Your task to perform on an android device: toggle location history Image 0: 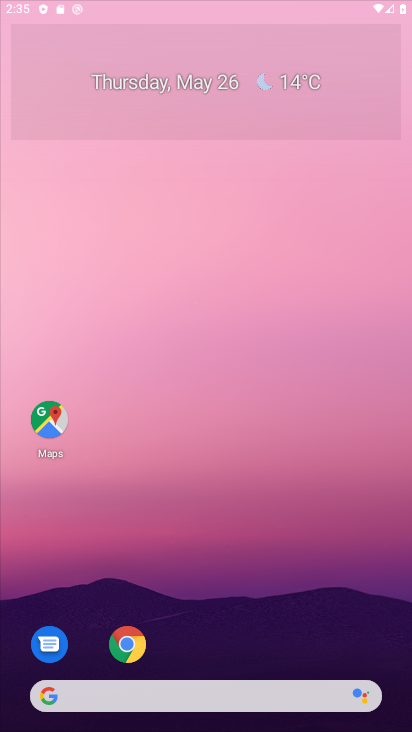
Step 0: click (290, 256)
Your task to perform on an android device: toggle location history Image 1: 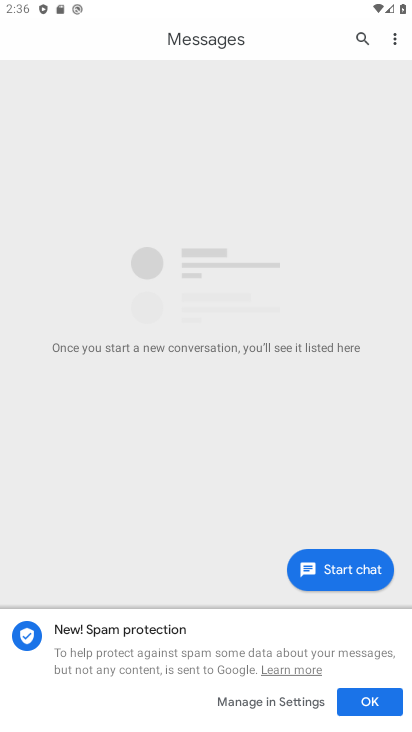
Step 1: press home button
Your task to perform on an android device: toggle location history Image 2: 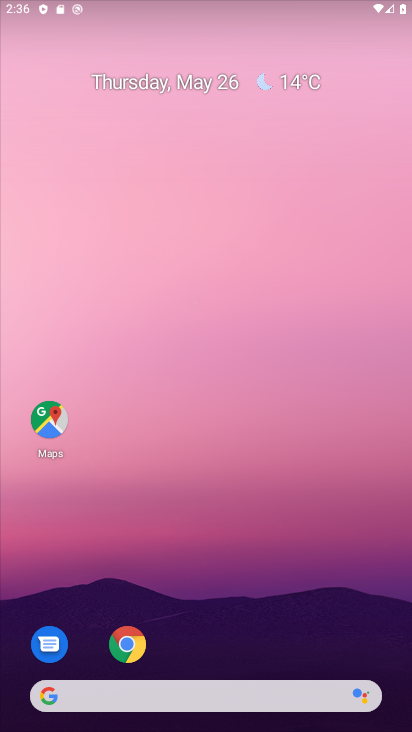
Step 2: drag from (311, 621) to (274, 134)
Your task to perform on an android device: toggle location history Image 3: 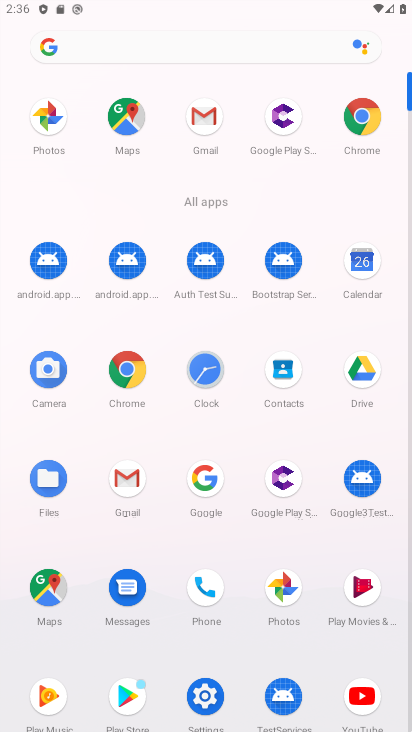
Step 3: drag from (225, 650) to (231, 304)
Your task to perform on an android device: toggle location history Image 4: 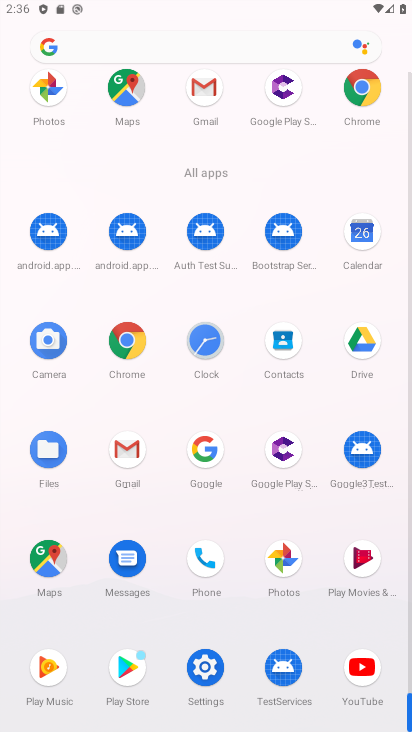
Step 4: click (225, 672)
Your task to perform on an android device: toggle location history Image 5: 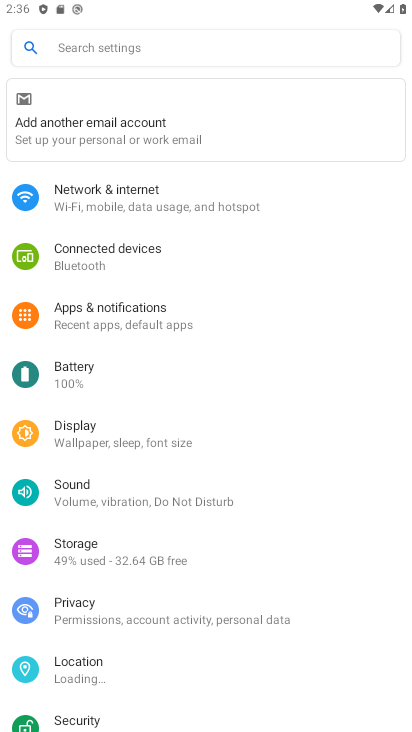
Step 5: click (113, 654)
Your task to perform on an android device: toggle location history Image 6: 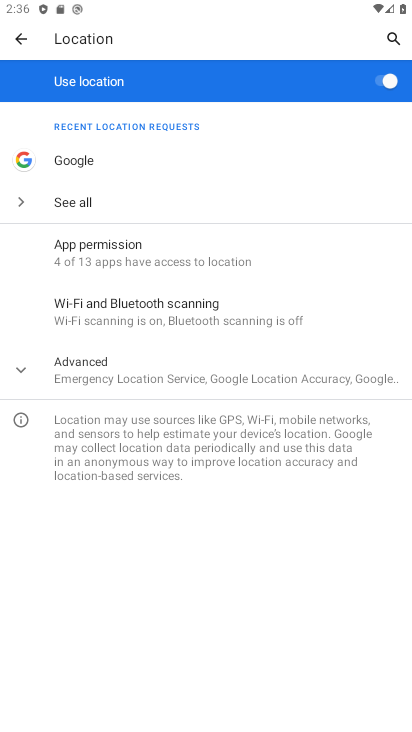
Step 6: click (172, 385)
Your task to perform on an android device: toggle location history Image 7: 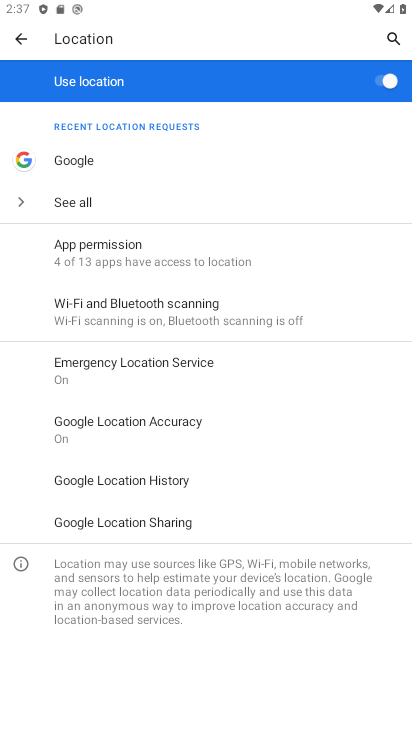
Step 7: click (157, 476)
Your task to perform on an android device: toggle location history Image 8: 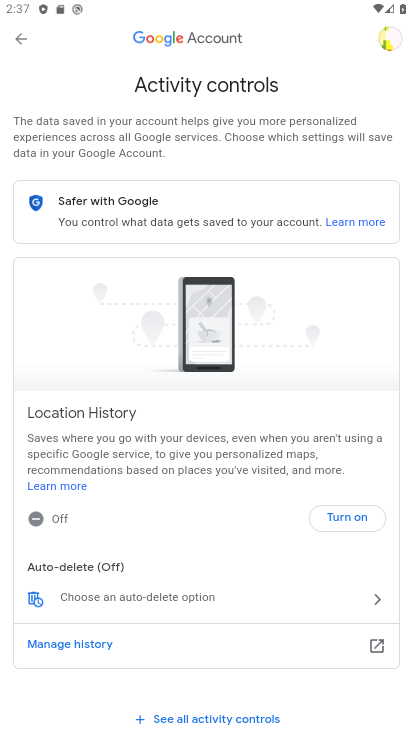
Step 8: click (39, 643)
Your task to perform on an android device: toggle location history Image 9: 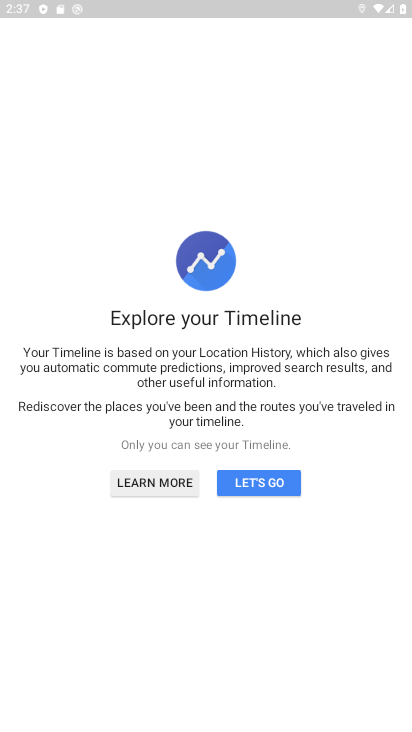
Step 9: click (284, 497)
Your task to perform on an android device: toggle location history Image 10: 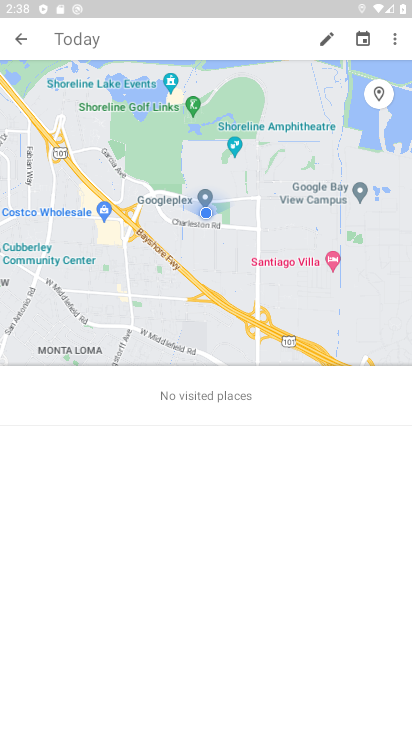
Step 10: click (392, 39)
Your task to perform on an android device: toggle location history Image 11: 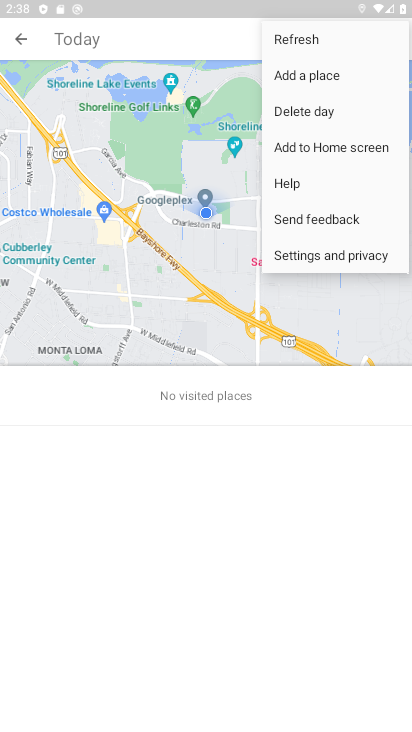
Step 11: click (310, 255)
Your task to perform on an android device: toggle location history Image 12: 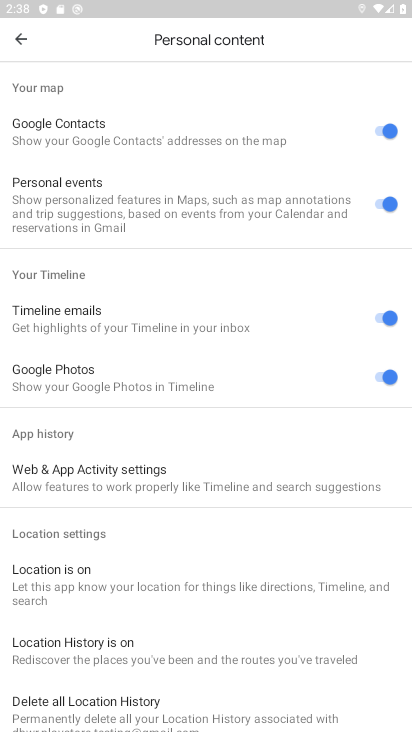
Step 12: drag from (184, 579) to (204, 229)
Your task to perform on an android device: toggle location history Image 13: 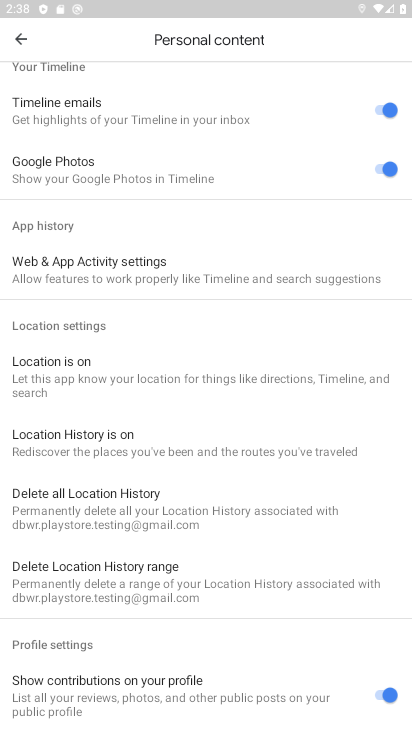
Step 13: click (153, 509)
Your task to perform on an android device: toggle location history Image 14: 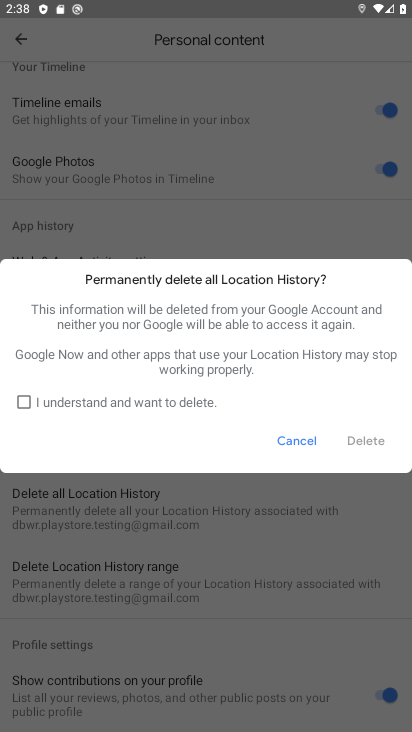
Step 14: click (54, 392)
Your task to perform on an android device: toggle location history Image 15: 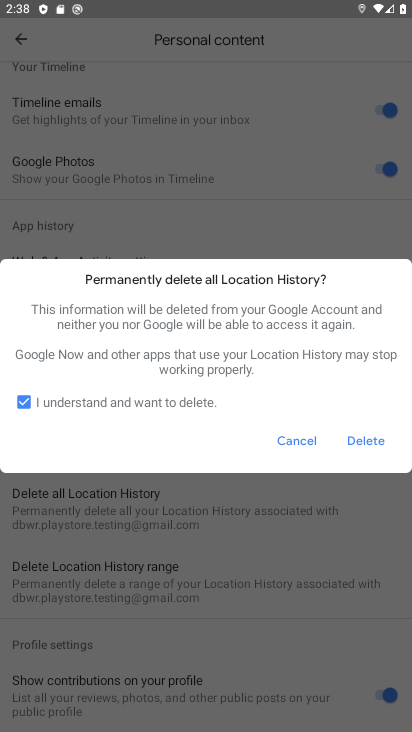
Step 15: click (54, 398)
Your task to perform on an android device: toggle location history Image 16: 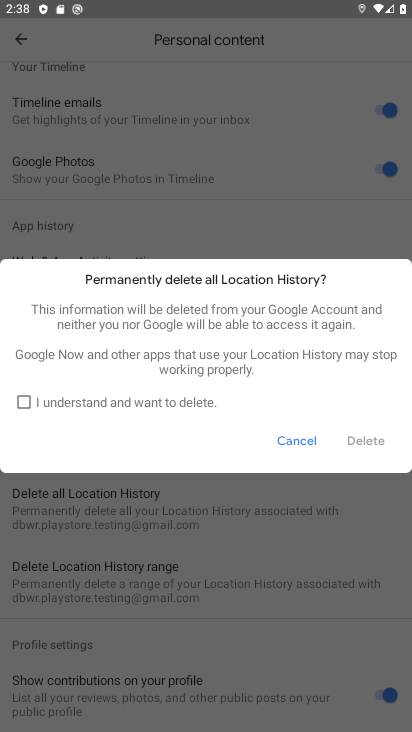
Step 16: click (294, 446)
Your task to perform on an android device: toggle location history Image 17: 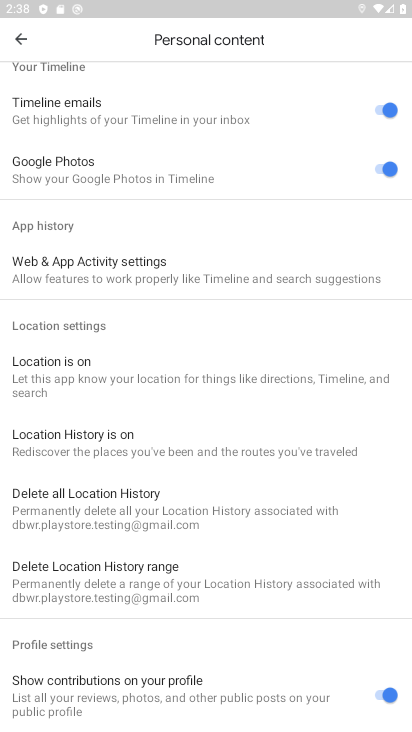
Step 17: click (188, 444)
Your task to perform on an android device: toggle location history Image 18: 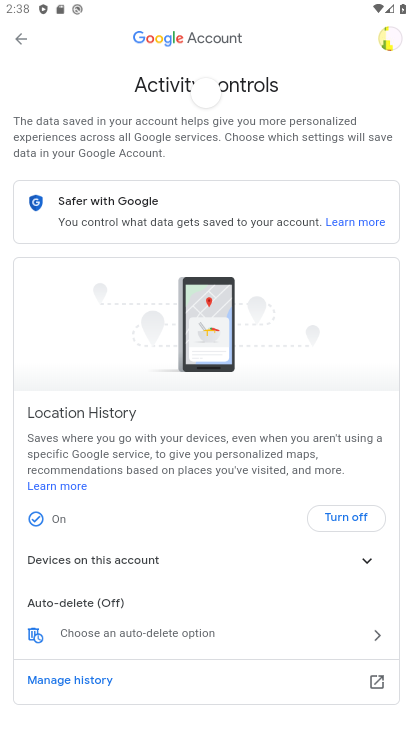
Step 18: drag from (281, 604) to (259, 348)
Your task to perform on an android device: toggle location history Image 19: 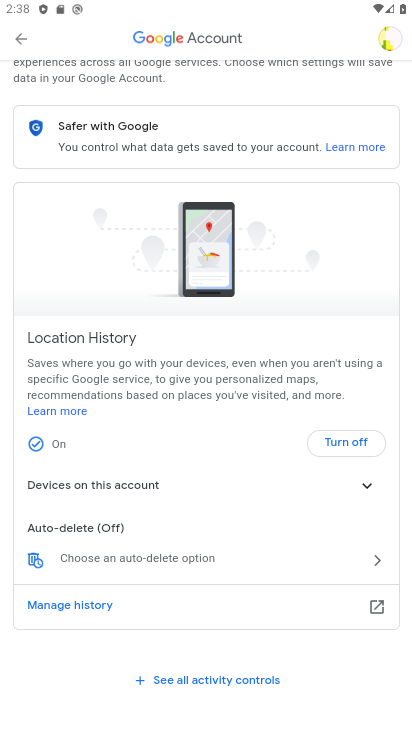
Step 19: click (333, 437)
Your task to perform on an android device: toggle location history Image 20: 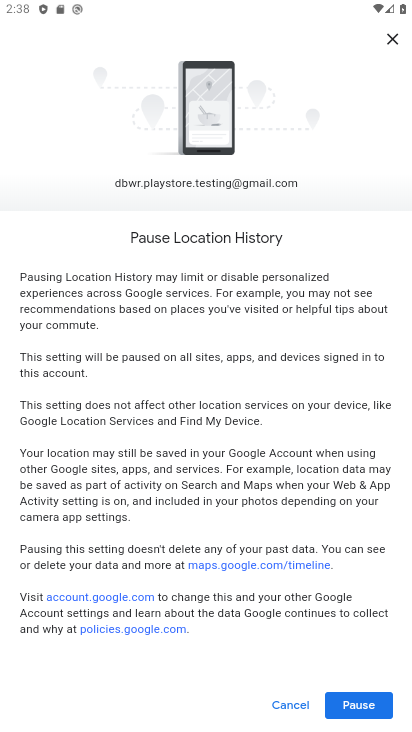
Step 20: drag from (333, 626) to (314, 244)
Your task to perform on an android device: toggle location history Image 21: 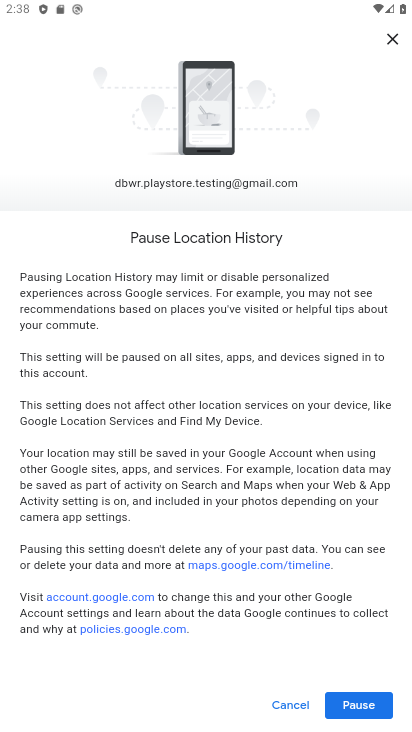
Step 21: drag from (335, 641) to (330, 231)
Your task to perform on an android device: toggle location history Image 22: 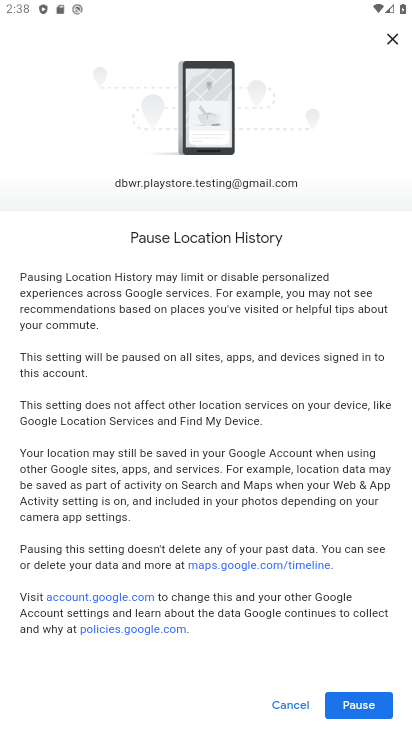
Step 22: click (373, 714)
Your task to perform on an android device: toggle location history Image 23: 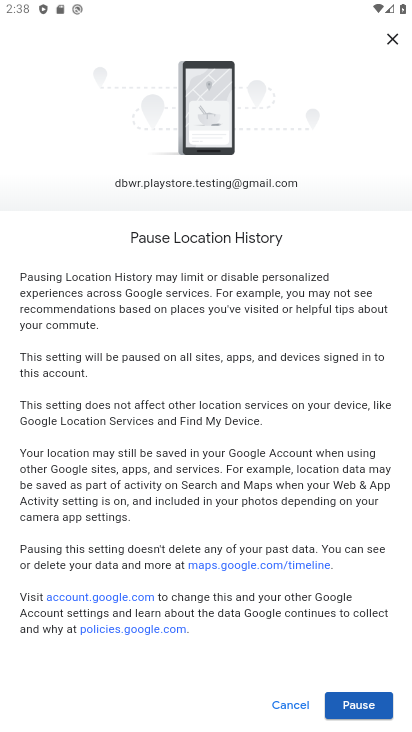
Step 23: drag from (374, 602) to (372, 433)
Your task to perform on an android device: toggle location history Image 24: 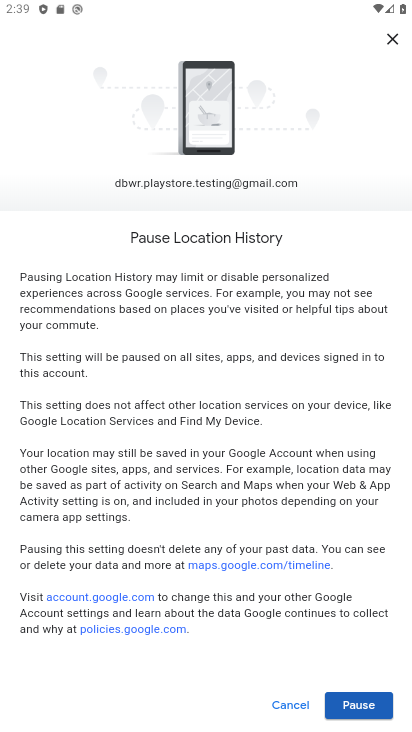
Step 24: click (364, 709)
Your task to perform on an android device: toggle location history Image 25: 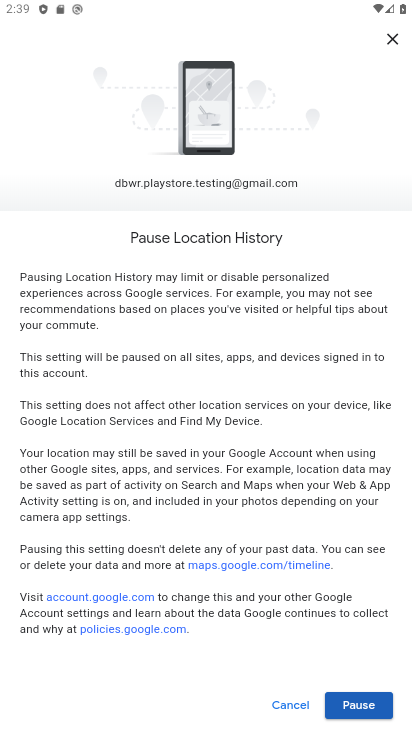
Step 25: click (368, 707)
Your task to perform on an android device: toggle location history Image 26: 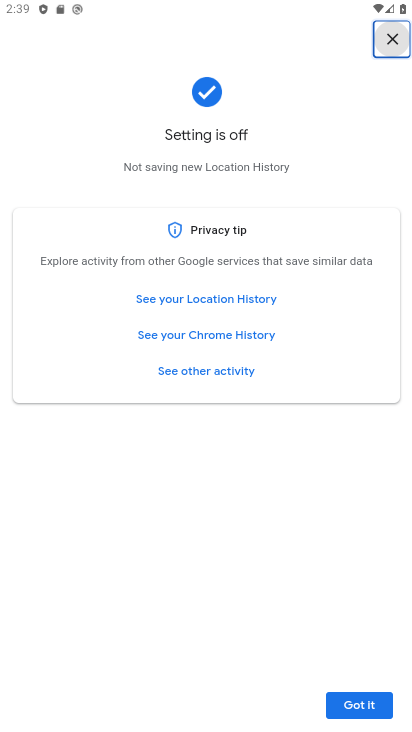
Step 26: click (372, 702)
Your task to perform on an android device: toggle location history Image 27: 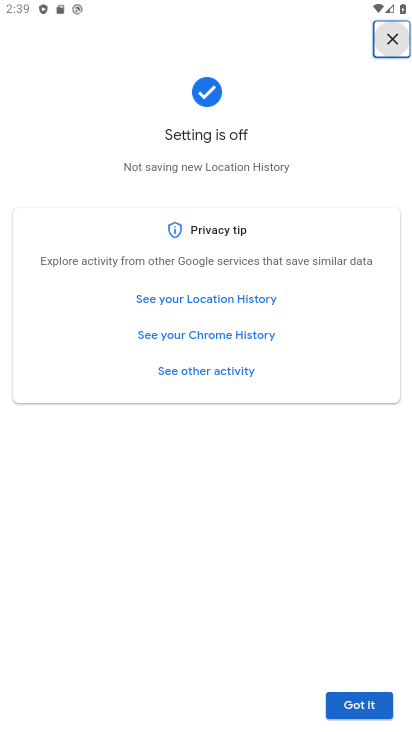
Step 27: task complete